Your task to perform on an android device: View the shopping cart on walmart. Add apple airpods to the cart on walmart Image 0: 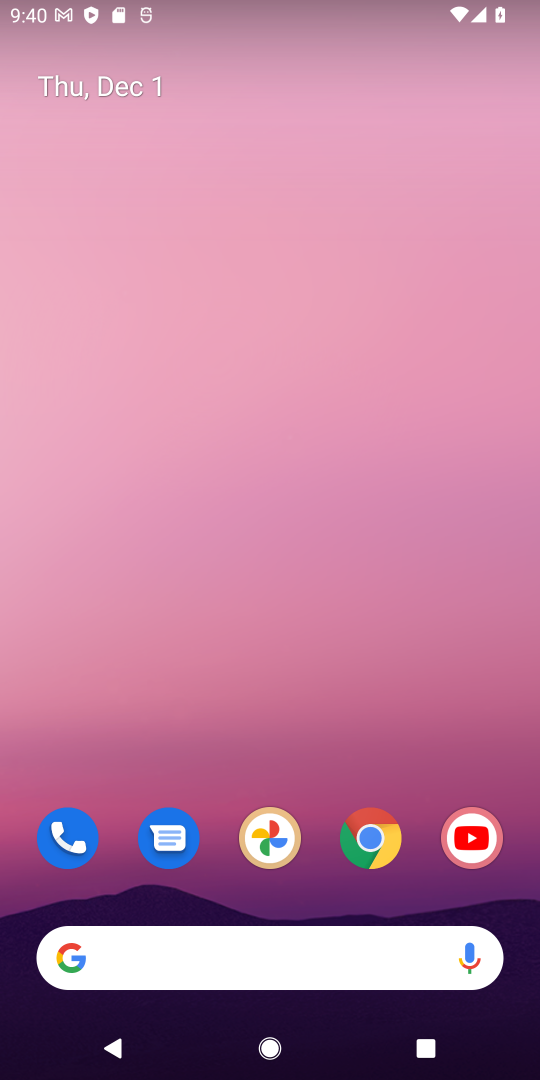
Step 0: press home button
Your task to perform on an android device: View the shopping cart on walmart. Add apple airpods to the cart on walmart Image 1: 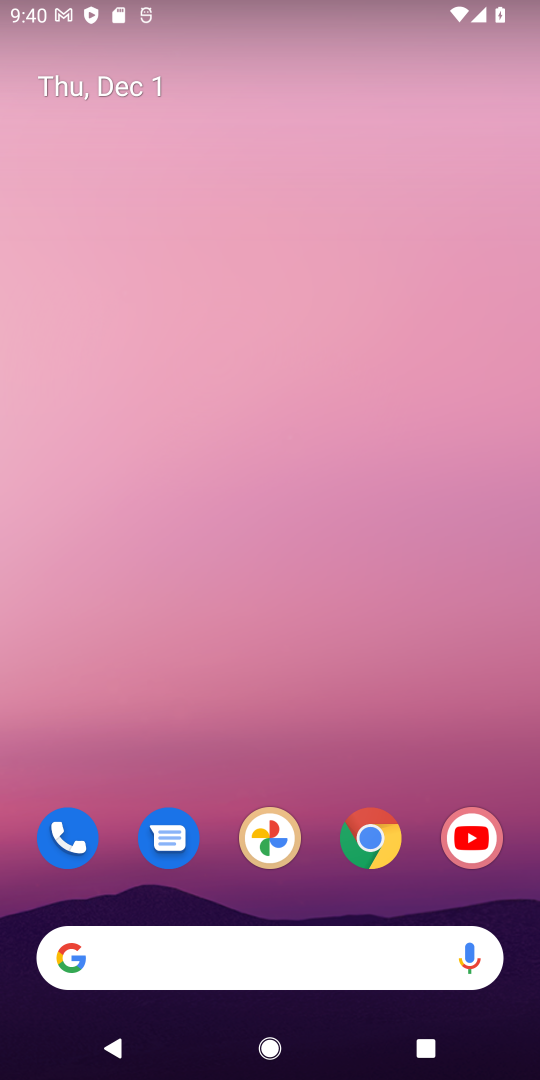
Step 1: drag from (277, 886) to (282, 293)
Your task to perform on an android device: View the shopping cart on walmart. Add apple airpods to the cart on walmart Image 2: 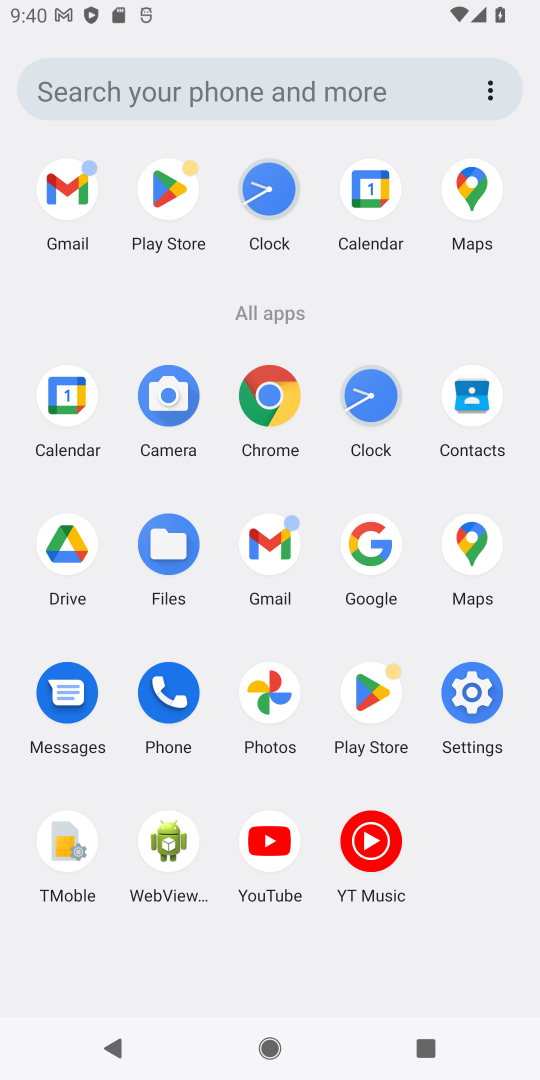
Step 2: click (367, 542)
Your task to perform on an android device: View the shopping cart on walmart. Add apple airpods to the cart on walmart Image 3: 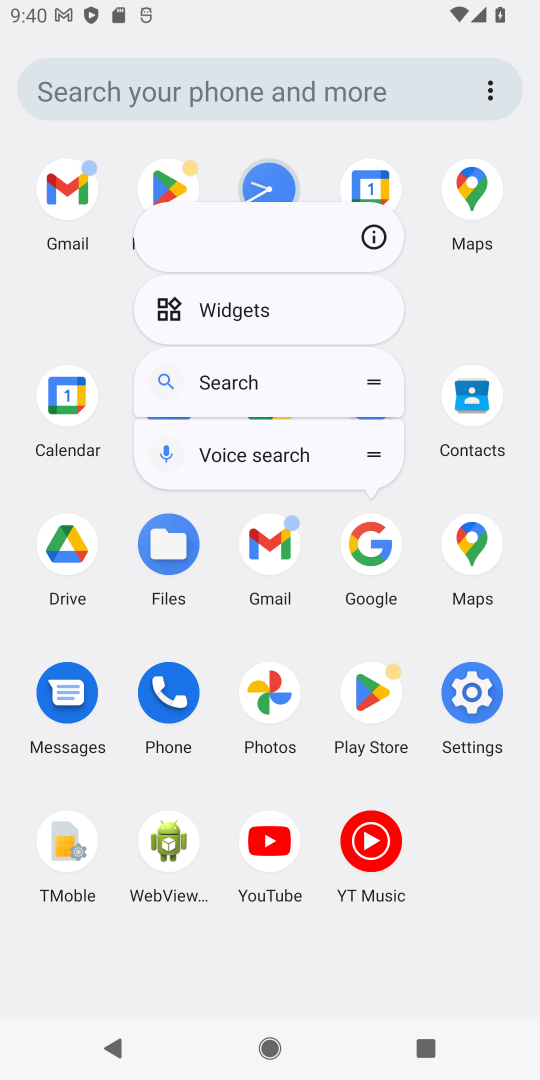
Step 3: click (354, 537)
Your task to perform on an android device: View the shopping cart on walmart. Add apple airpods to the cart on walmart Image 4: 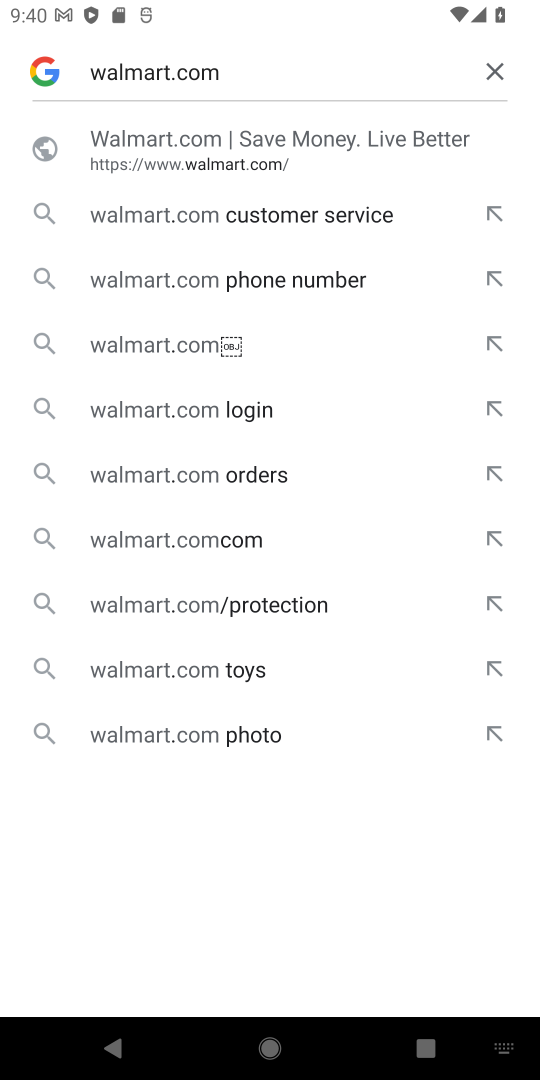
Step 4: click (223, 151)
Your task to perform on an android device: View the shopping cart on walmart. Add apple airpods to the cart on walmart Image 5: 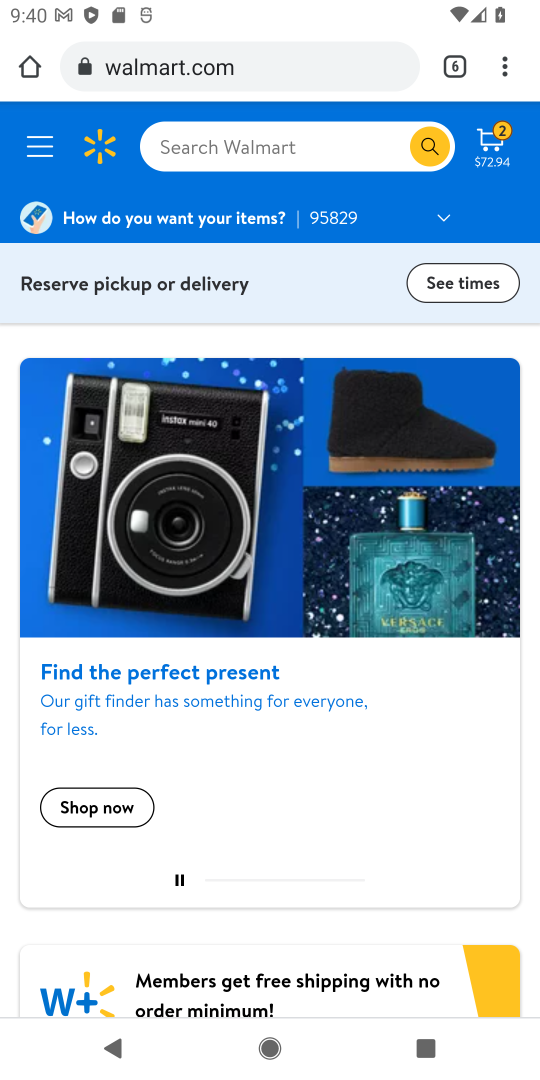
Step 5: click (286, 85)
Your task to perform on an android device: View the shopping cart on walmart. Add apple airpods to the cart on walmart Image 6: 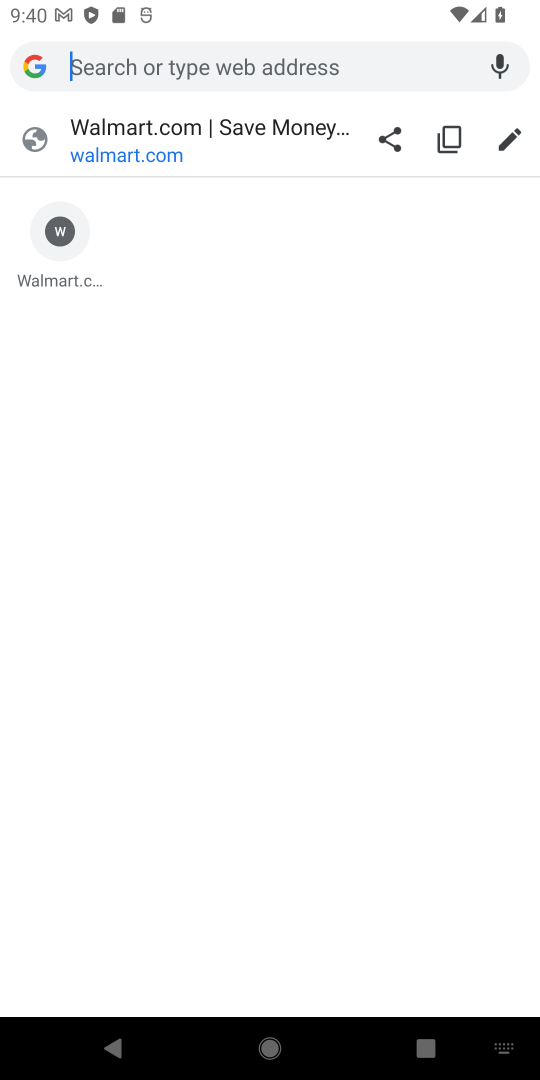
Step 6: click (191, 145)
Your task to perform on an android device: View the shopping cart on walmart. Add apple airpods to the cart on walmart Image 7: 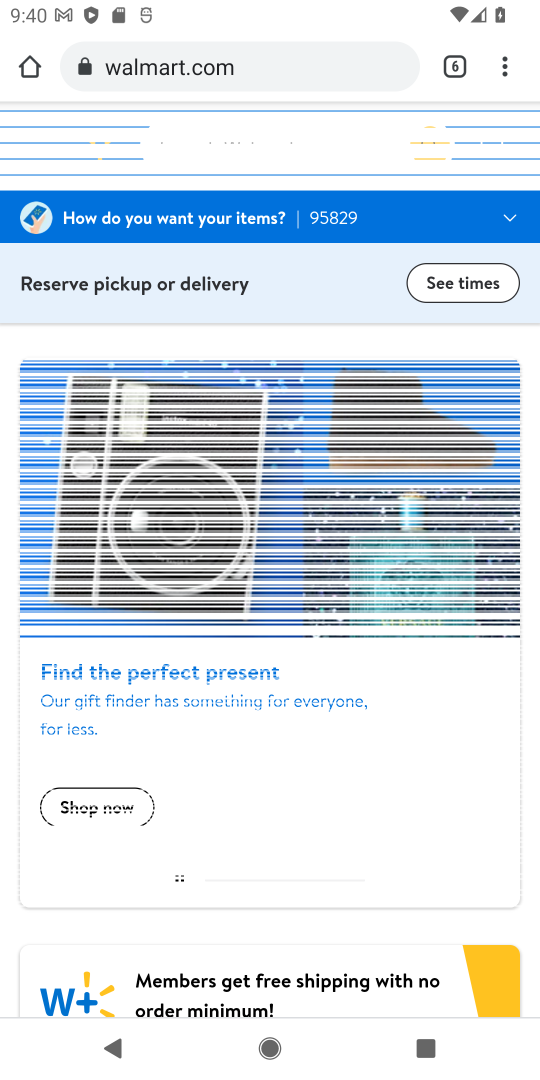
Step 7: click (195, 148)
Your task to perform on an android device: View the shopping cart on walmart. Add apple airpods to the cart on walmart Image 8: 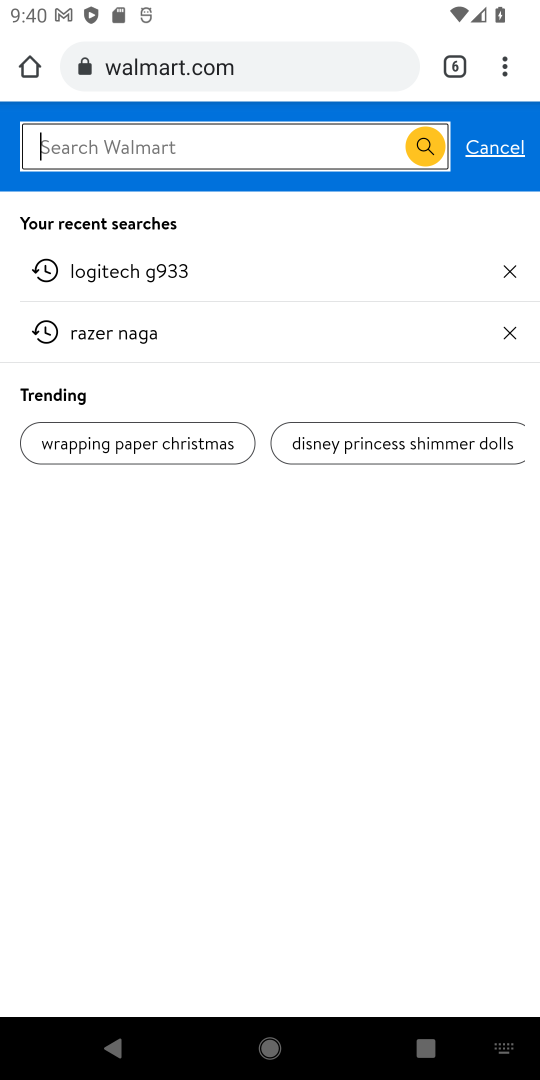
Step 8: type "apple airpods"
Your task to perform on an android device: View the shopping cart on walmart. Add apple airpods to the cart on walmart Image 9: 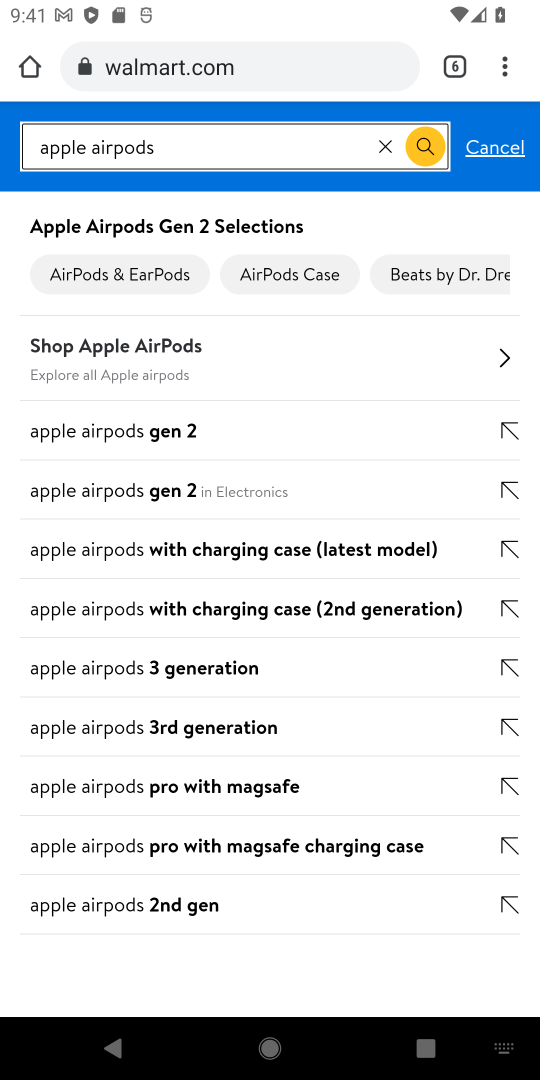
Step 9: click (129, 351)
Your task to perform on an android device: View the shopping cart on walmart. Add apple airpods to the cart on walmart Image 10: 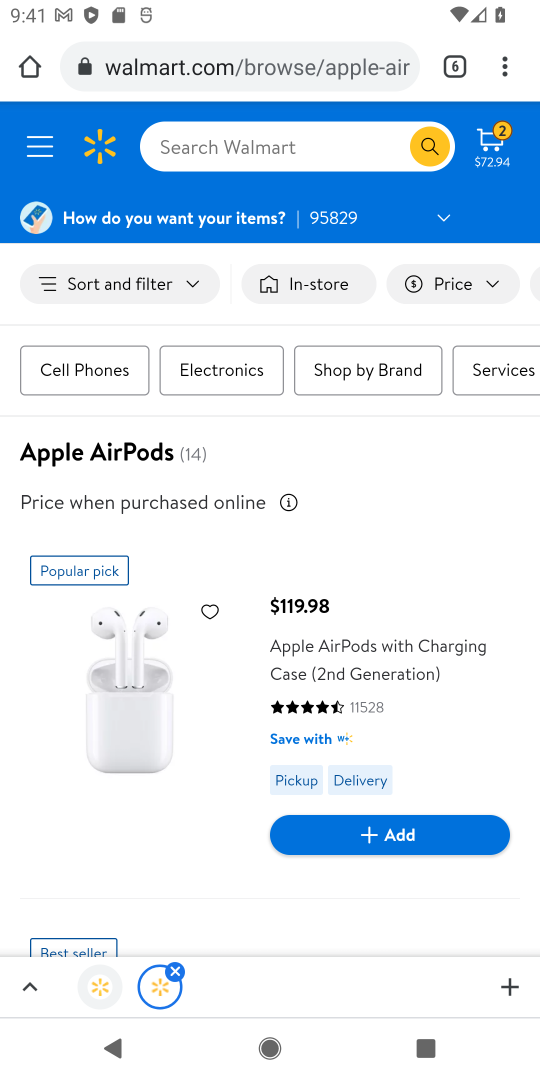
Step 10: click (420, 832)
Your task to perform on an android device: View the shopping cart on walmart. Add apple airpods to the cart on walmart Image 11: 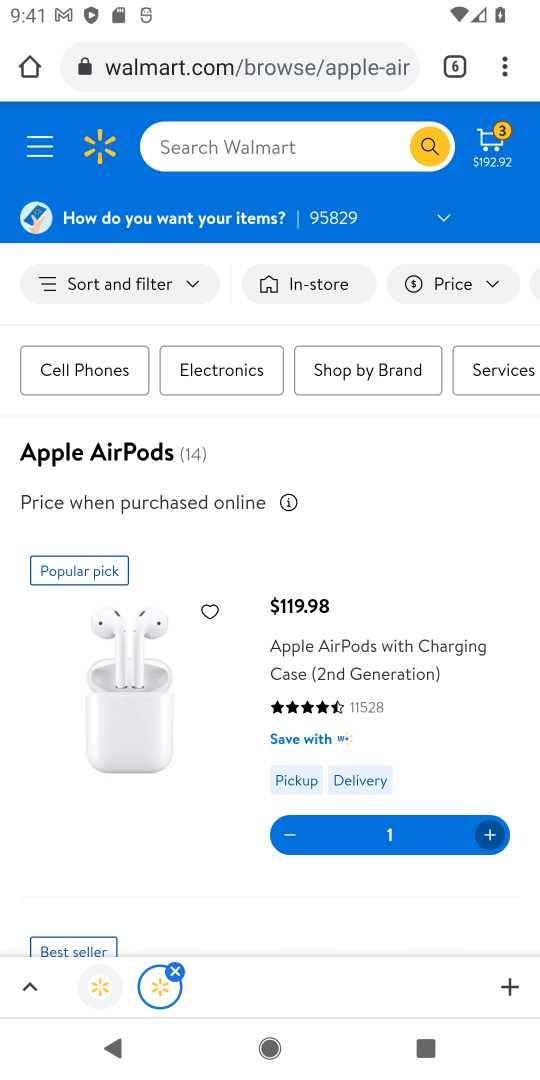
Step 11: click (495, 137)
Your task to perform on an android device: View the shopping cart on walmart. Add apple airpods to the cart on walmart Image 12: 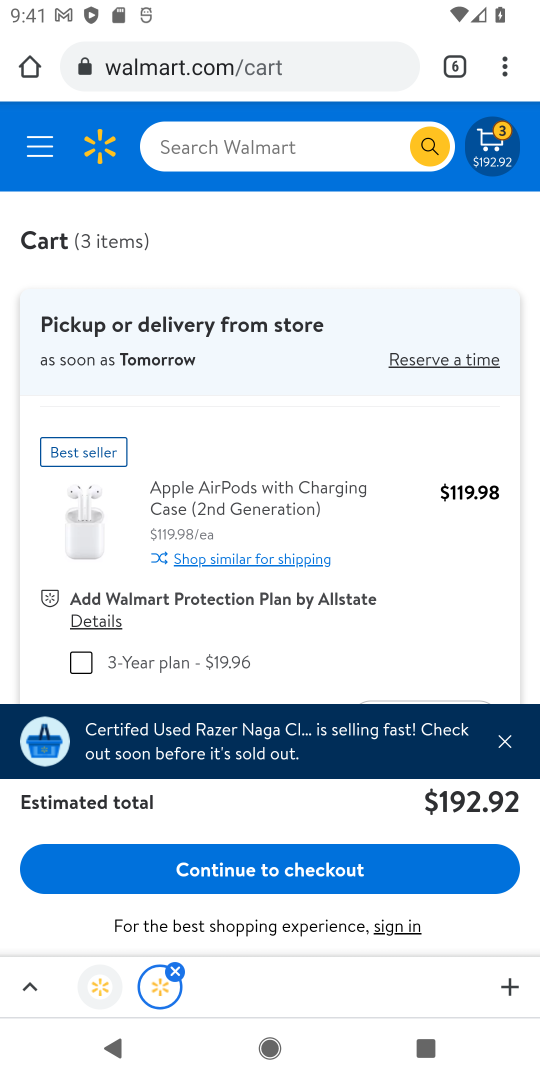
Step 12: drag from (364, 820) to (357, 373)
Your task to perform on an android device: View the shopping cart on walmart. Add apple airpods to the cart on walmart Image 13: 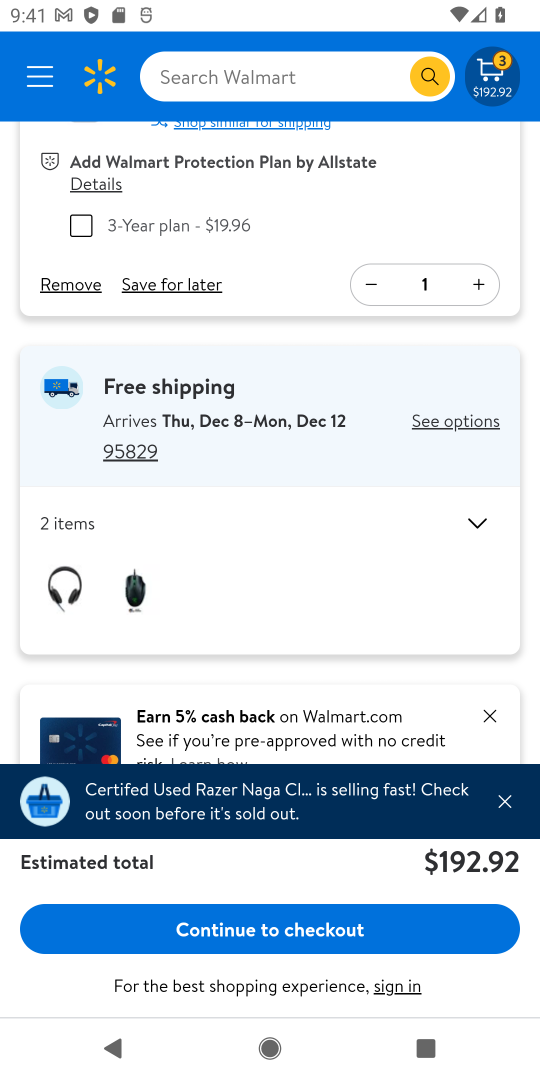
Step 13: click (509, 813)
Your task to perform on an android device: View the shopping cart on walmart. Add apple airpods to the cart on walmart Image 14: 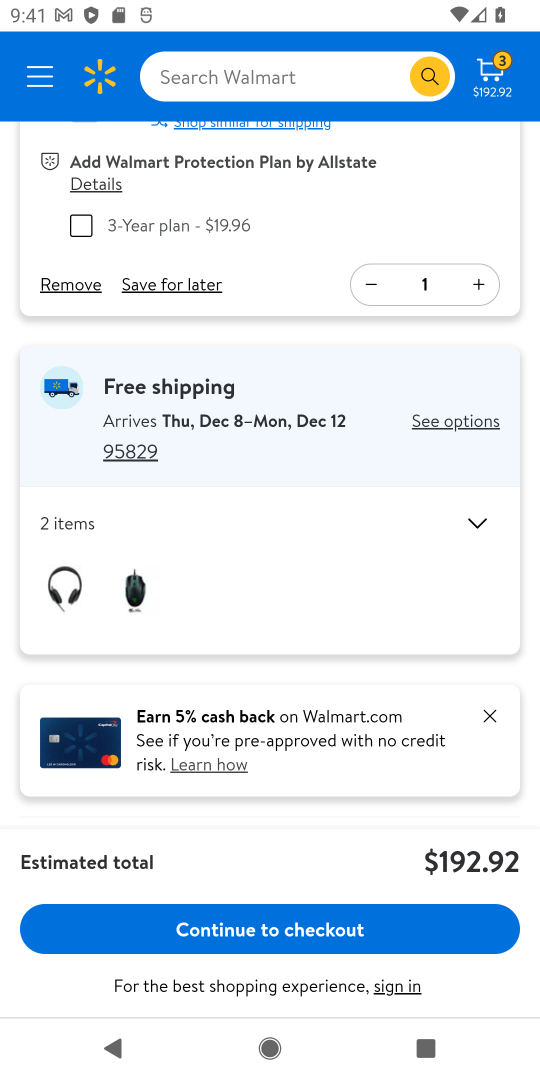
Step 14: task complete